Your task to perform on an android device: toggle notifications settings in the gmail app Image 0: 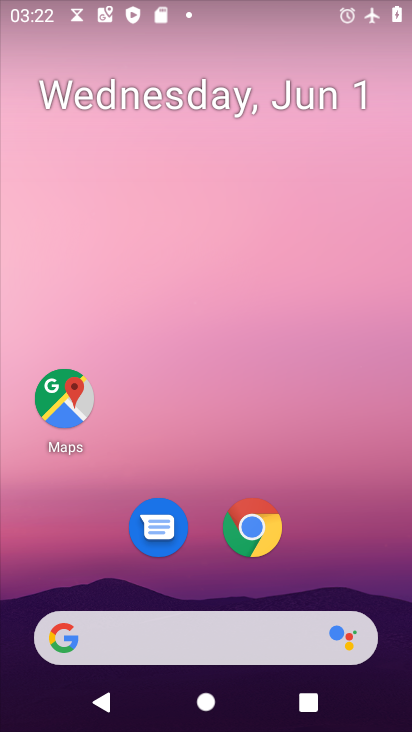
Step 0: drag from (343, 542) to (277, 161)
Your task to perform on an android device: toggle notifications settings in the gmail app Image 1: 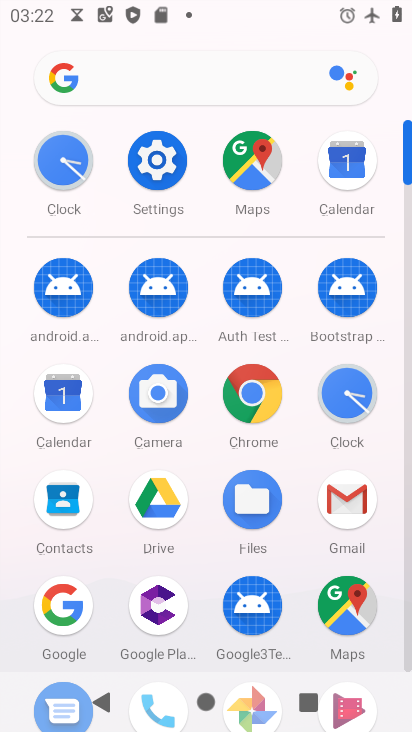
Step 1: click (342, 496)
Your task to perform on an android device: toggle notifications settings in the gmail app Image 2: 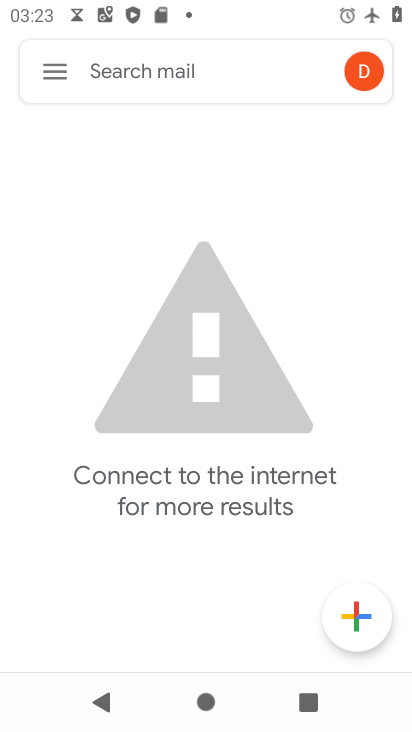
Step 2: click (55, 75)
Your task to perform on an android device: toggle notifications settings in the gmail app Image 3: 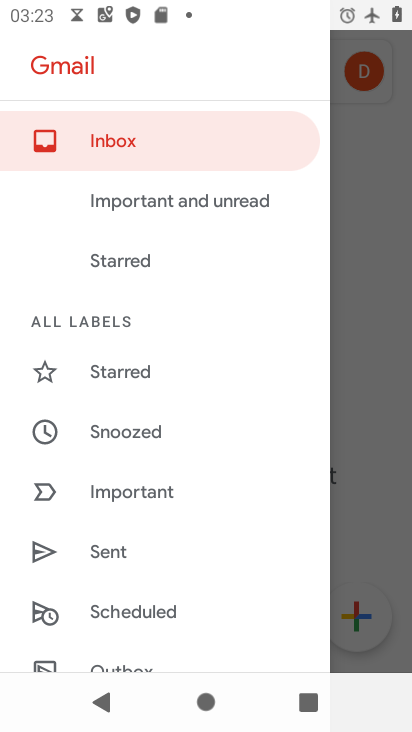
Step 3: drag from (122, 464) to (175, 395)
Your task to perform on an android device: toggle notifications settings in the gmail app Image 4: 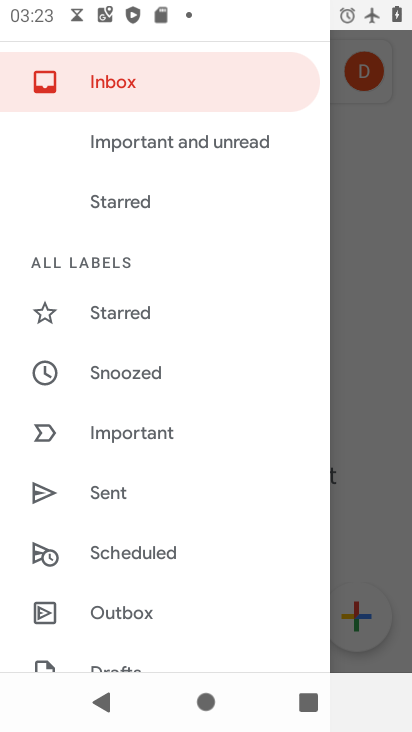
Step 4: drag from (108, 534) to (189, 444)
Your task to perform on an android device: toggle notifications settings in the gmail app Image 5: 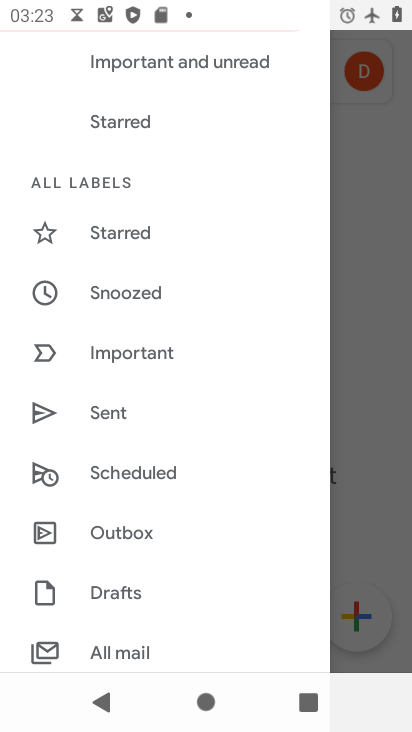
Step 5: drag from (102, 569) to (186, 468)
Your task to perform on an android device: toggle notifications settings in the gmail app Image 6: 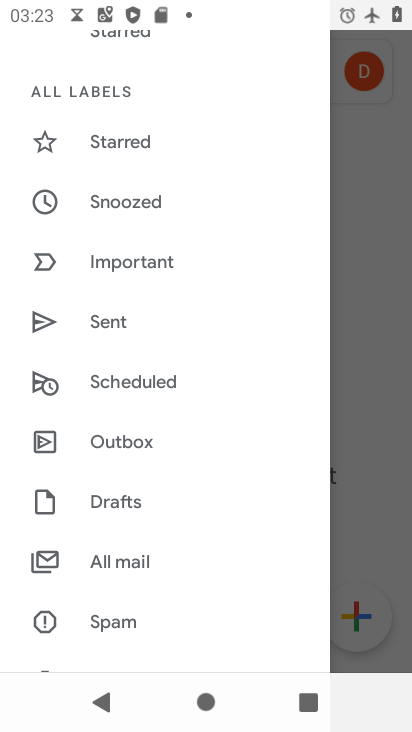
Step 6: drag from (119, 544) to (184, 470)
Your task to perform on an android device: toggle notifications settings in the gmail app Image 7: 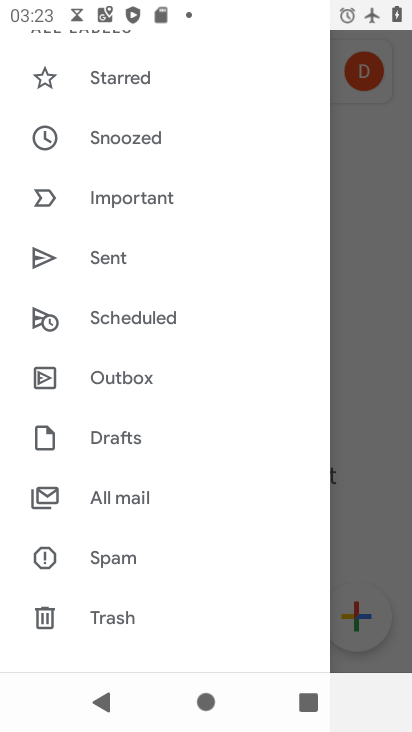
Step 7: drag from (130, 532) to (208, 450)
Your task to perform on an android device: toggle notifications settings in the gmail app Image 8: 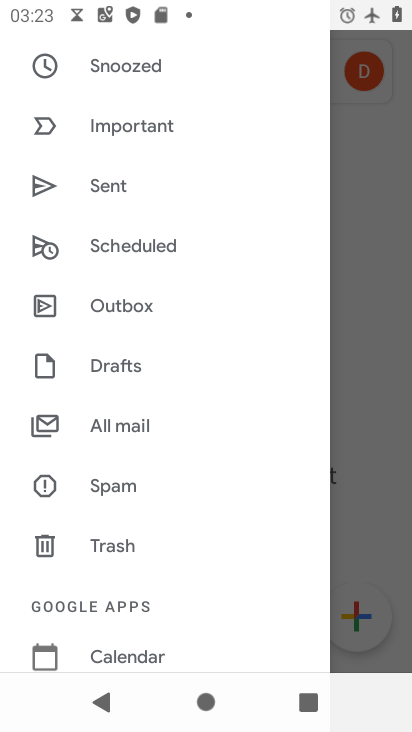
Step 8: drag from (129, 517) to (194, 422)
Your task to perform on an android device: toggle notifications settings in the gmail app Image 9: 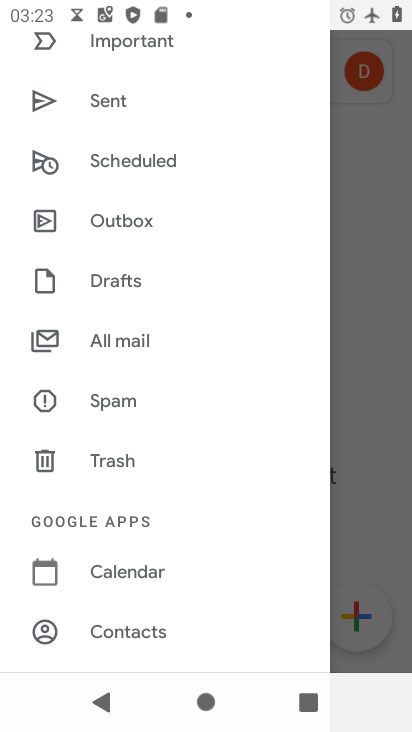
Step 9: drag from (127, 542) to (171, 478)
Your task to perform on an android device: toggle notifications settings in the gmail app Image 10: 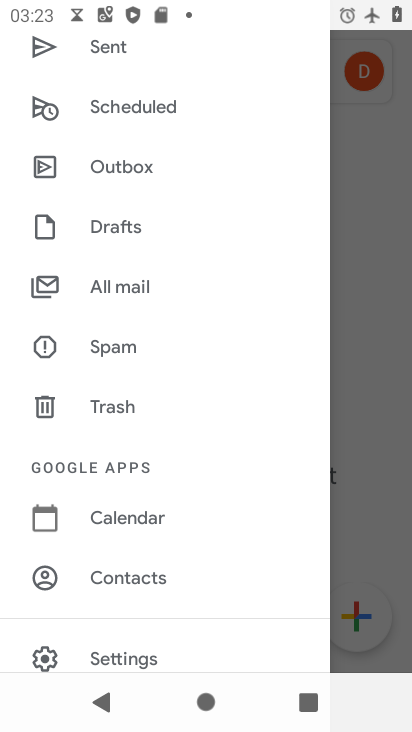
Step 10: drag from (107, 555) to (174, 474)
Your task to perform on an android device: toggle notifications settings in the gmail app Image 11: 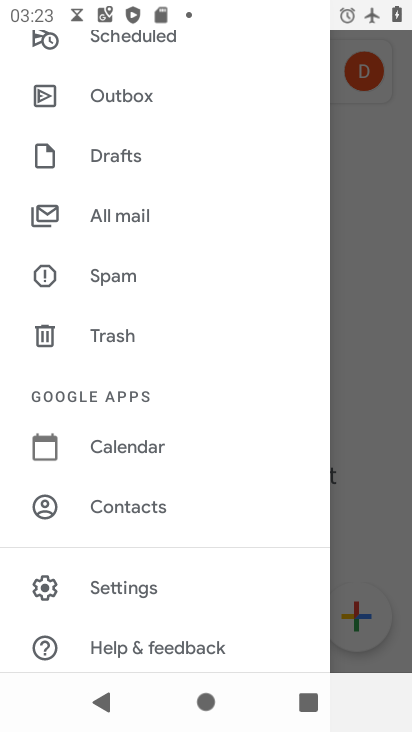
Step 11: click (129, 588)
Your task to perform on an android device: toggle notifications settings in the gmail app Image 12: 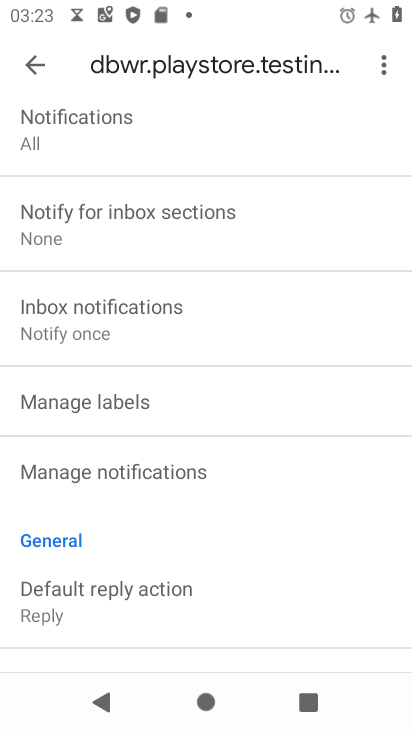
Step 12: click (83, 469)
Your task to perform on an android device: toggle notifications settings in the gmail app Image 13: 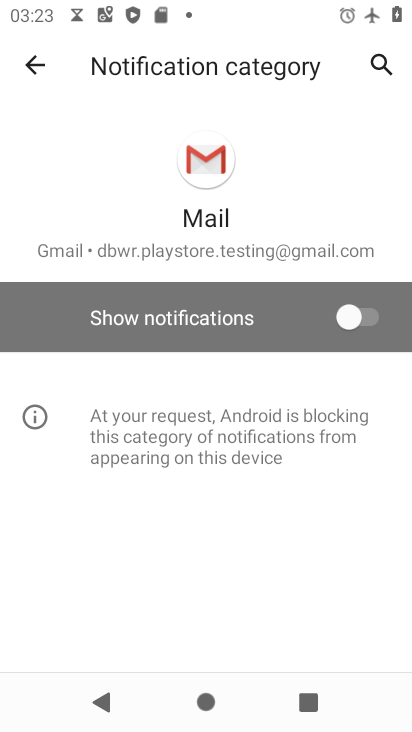
Step 13: click (362, 319)
Your task to perform on an android device: toggle notifications settings in the gmail app Image 14: 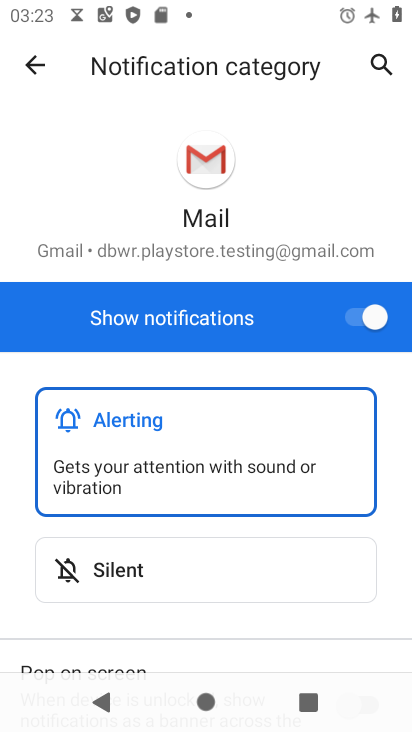
Step 14: task complete